Your task to perform on an android device: Open Chrome and go to the settings page Image 0: 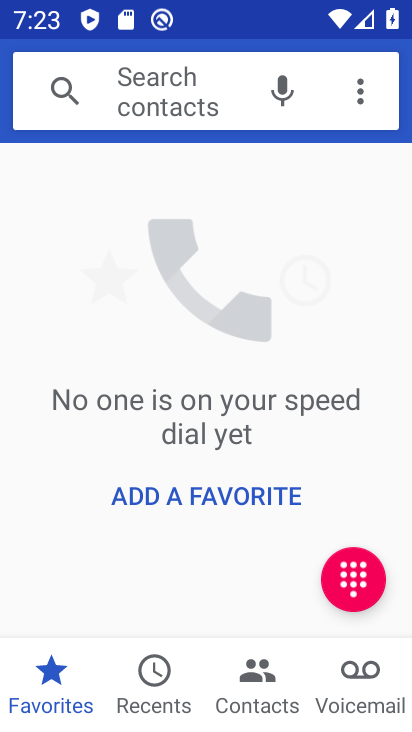
Step 0: click (253, 549)
Your task to perform on an android device: Open Chrome and go to the settings page Image 1: 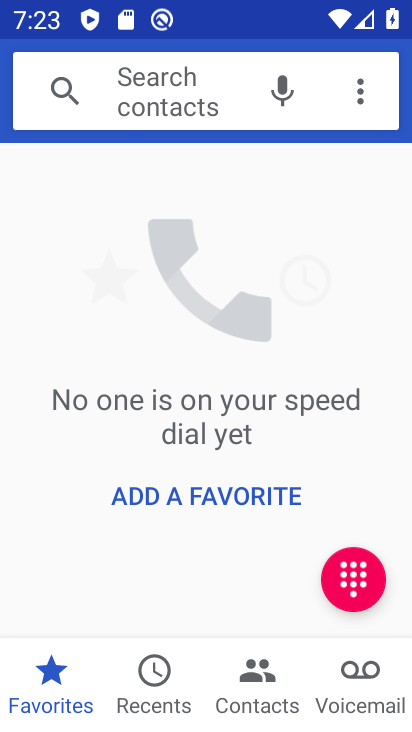
Step 1: press home button
Your task to perform on an android device: Open Chrome and go to the settings page Image 2: 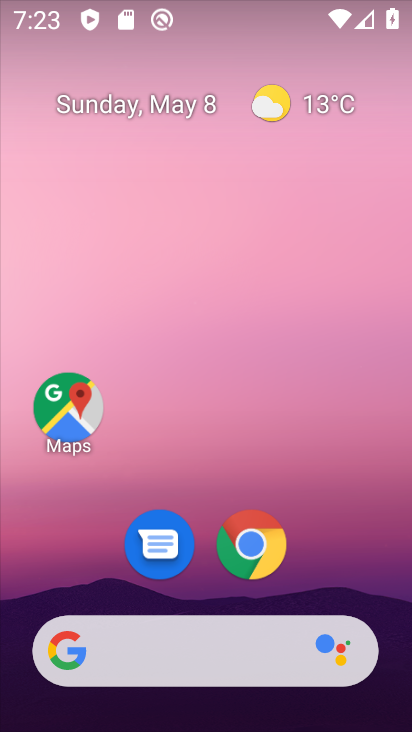
Step 2: click (249, 548)
Your task to perform on an android device: Open Chrome and go to the settings page Image 3: 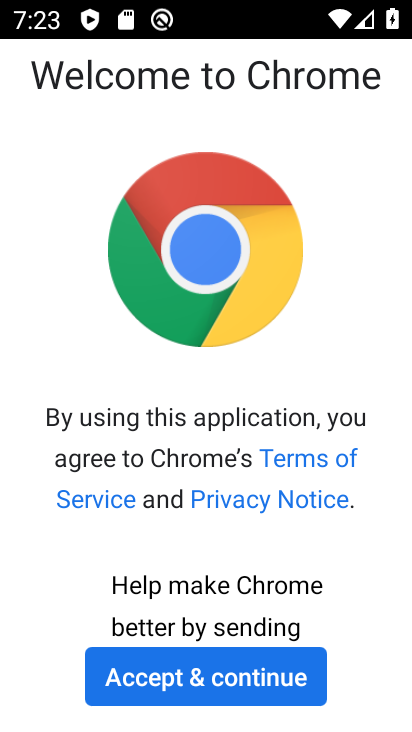
Step 3: click (219, 666)
Your task to perform on an android device: Open Chrome and go to the settings page Image 4: 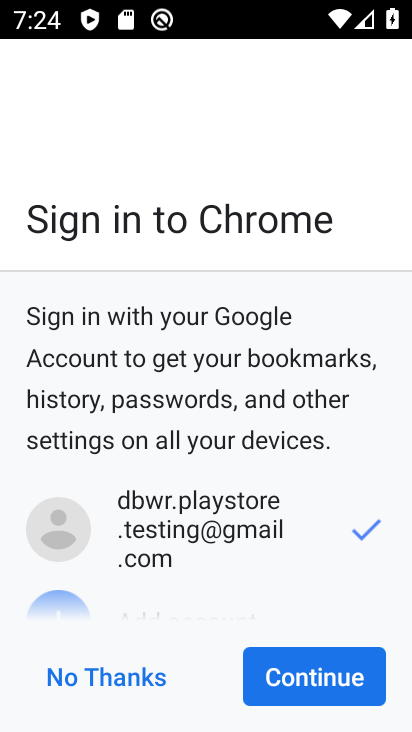
Step 4: click (290, 666)
Your task to perform on an android device: Open Chrome and go to the settings page Image 5: 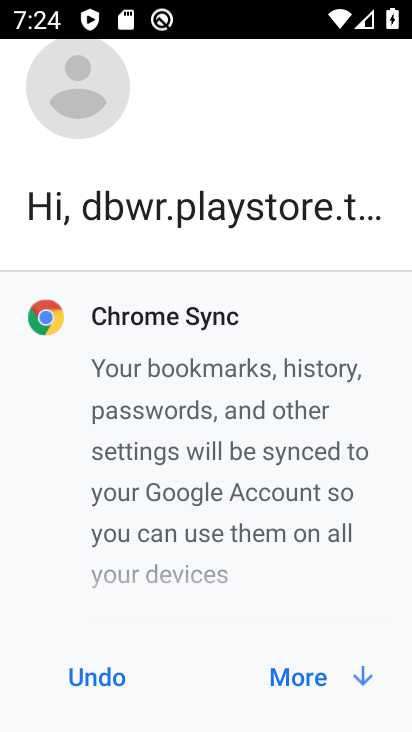
Step 5: click (345, 677)
Your task to perform on an android device: Open Chrome and go to the settings page Image 6: 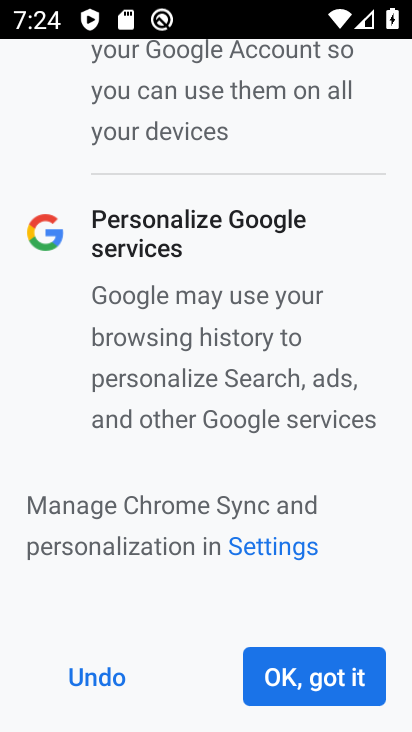
Step 6: click (299, 686)
Your task to perform on an android device: Open Chrome and go to the settings page Image 7: 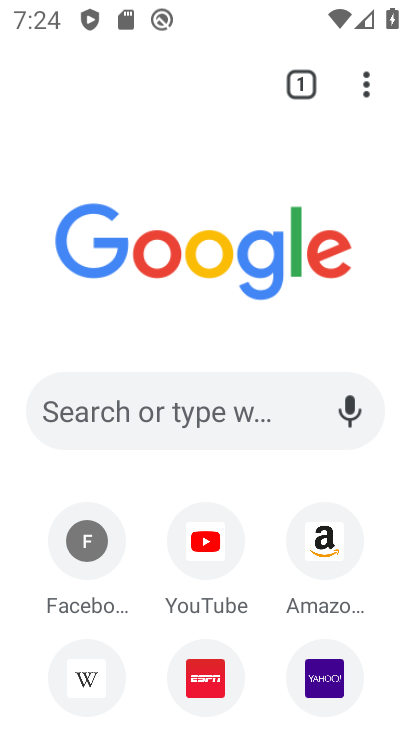
Step 7: click (363, 89)
Your task to perform on an android device: Open Chrome and go to the settings page Image 8: 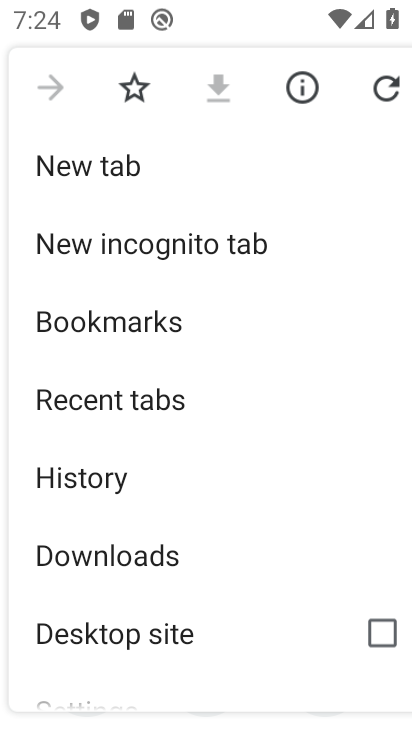
Step 8: drag from (216, 579) to (170, 204)
Your task to perform on an android device: Open Chrome and go to the settings page Image 9: 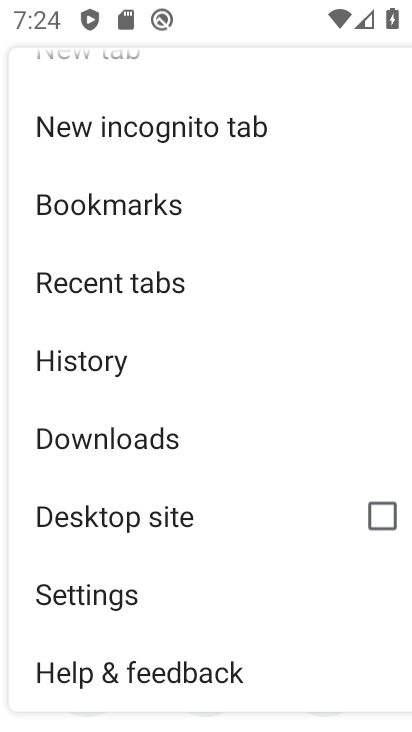
Step 9: click (92, 589)
Your task to perform on an android device: Open Chrome and go to the settings page Image 10: 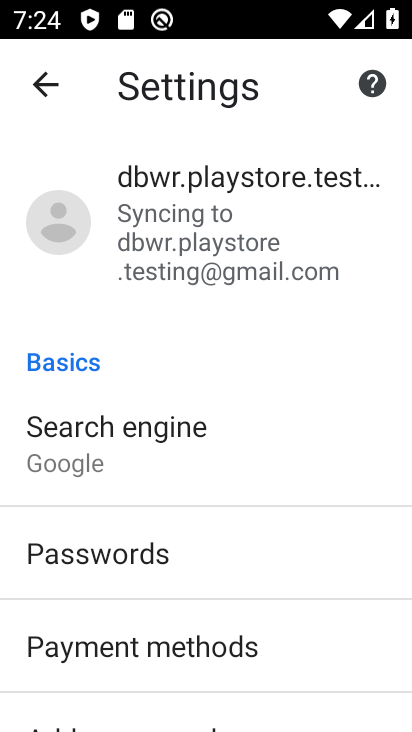
Step 10: task complete